Your task to perform on an android device: Open CNN.com Image 0: 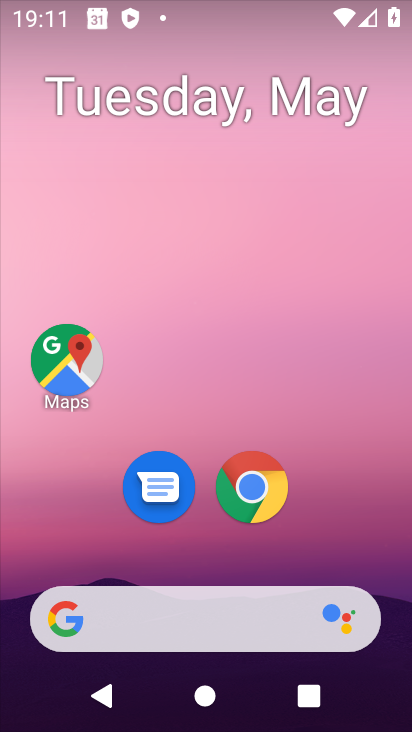
Step 0: click (195, 610)
Your task to perform on an android device: Open CNN.com Image 1: 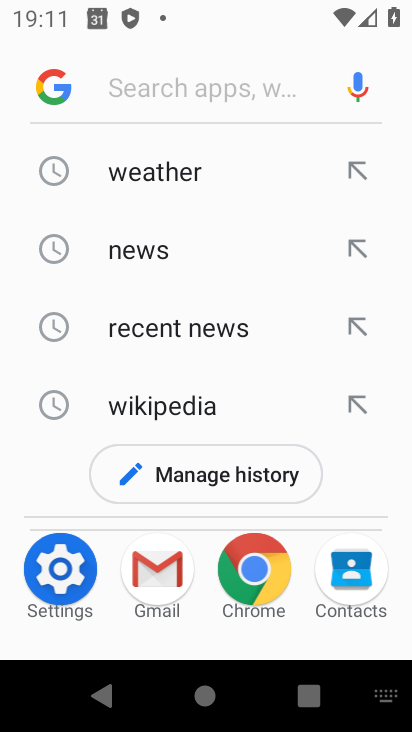
Step 1: type "cnn.com"
Your task to perform on an android device: Open CNN.com Image 2: 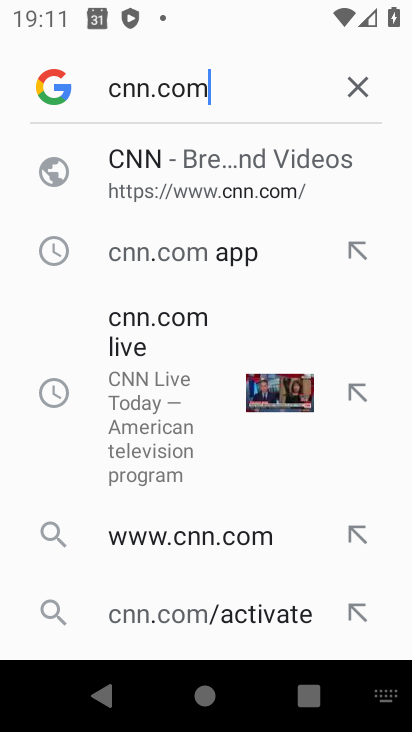
Step 2: click (155, 150)
Your task to perform on an android device: Open CNN.com Image 3: 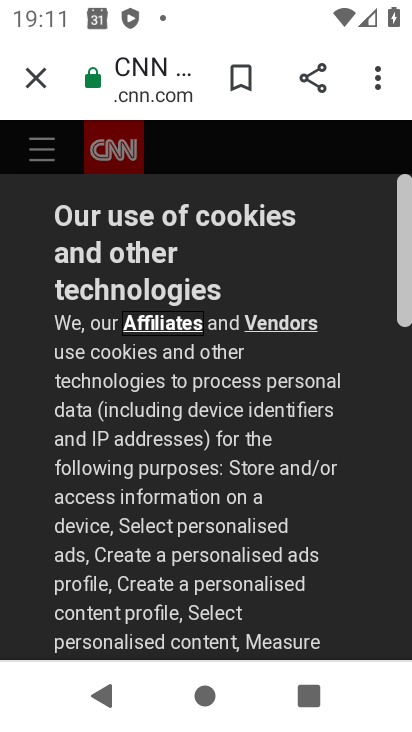
Step 3: task complete